Your task to perform on an android device: create a new album in the google photos Image 0: 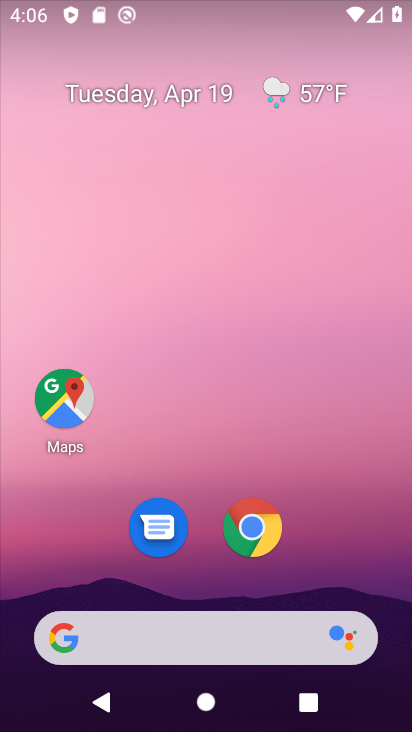
Step 0: drag from (398, 639) to (330, 183)
Your task to perform on an android device: create a new album in the google photos Image 1: 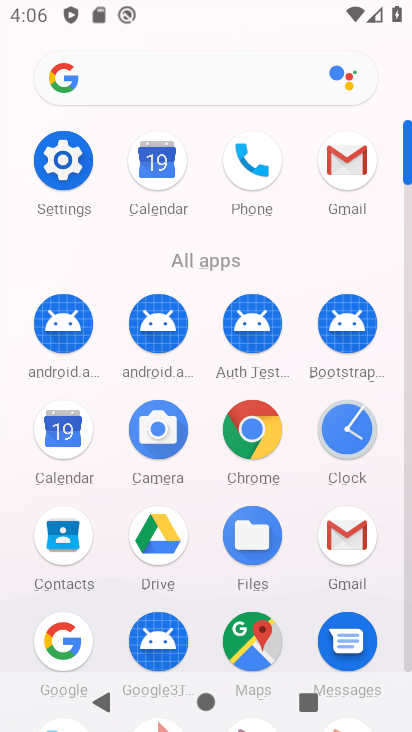
Step 1: click (406, 654)
Your task to perform on an android device: create a new album in the google photos Image 2: 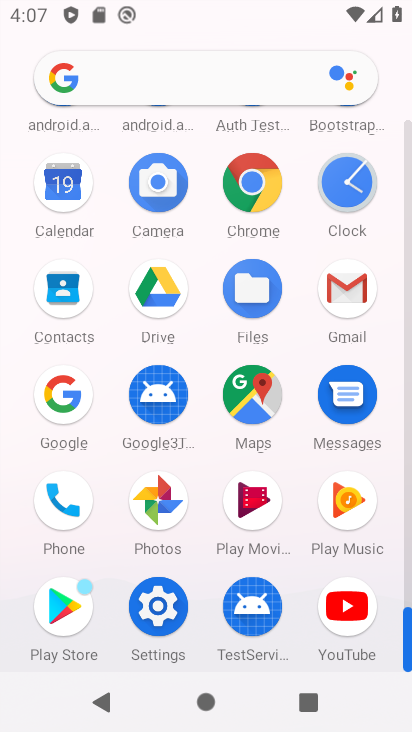
Step 2: click (159, 495)
Your task to perform on an android device: create a new album in the google photos Image 3: 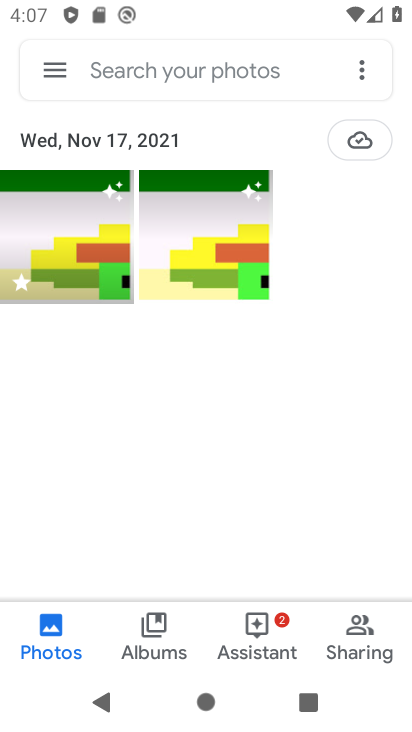
Step 3: click (360, 69)
Your task to perform on an android device: create a new album in the google photos Image 4: 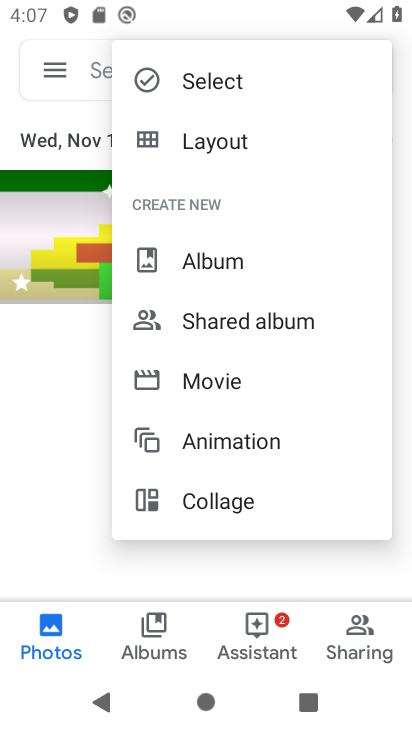
Step 4: click (219, 256)
Your task to perform on an android device: create a new album in the google photos Image 5: 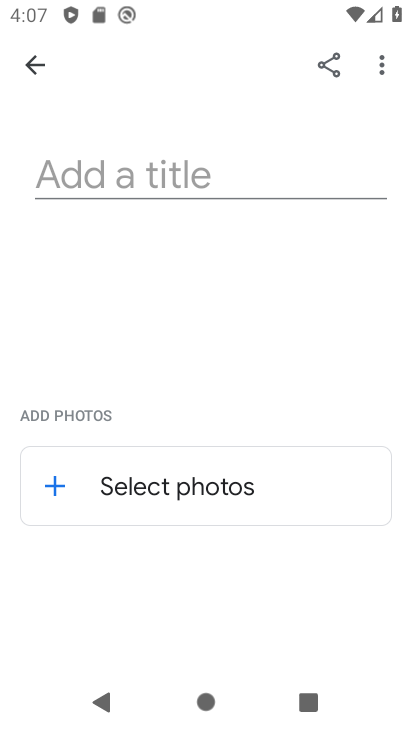
Step 5: click (103, 178)
Your task to perform on an android device: create a new album in the google photos Image 6: 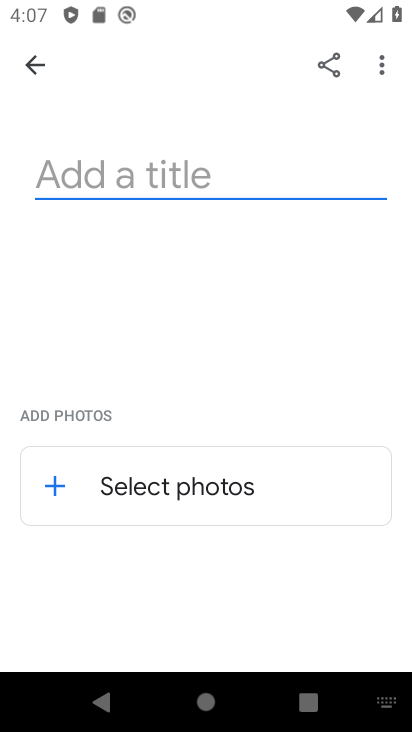
Step 6: type "aifeorop"
Your task to perform on an android device: create a new album in the google photos Image 7: 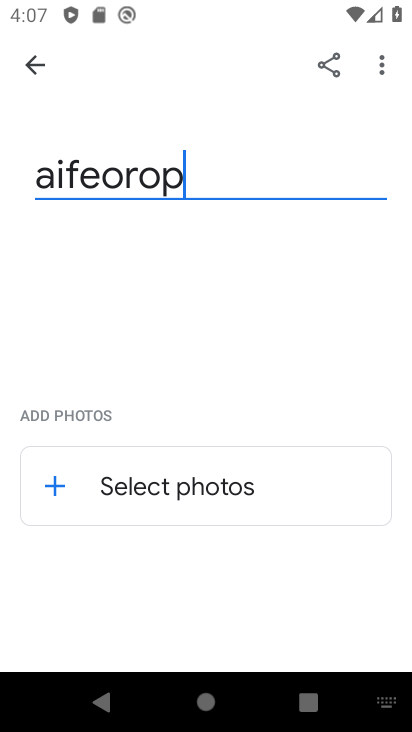
Step 7: click (56, 483)
Your task to perform on an android device: create a new album in the google photos Image 8: 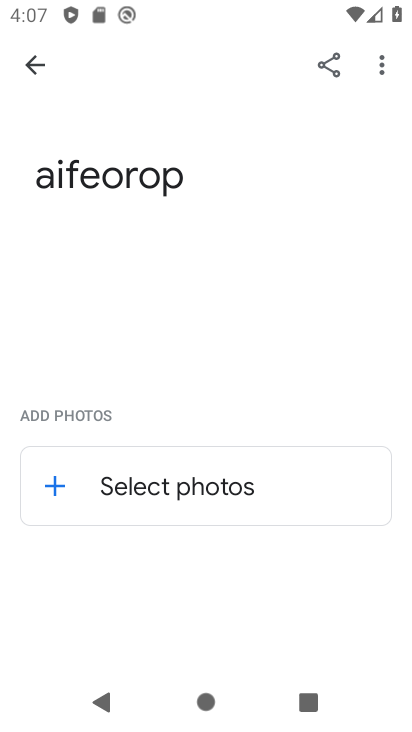
Step 8: click (56, 483)
Your task to perform on an android device: create a new album in the google photos Image 9: 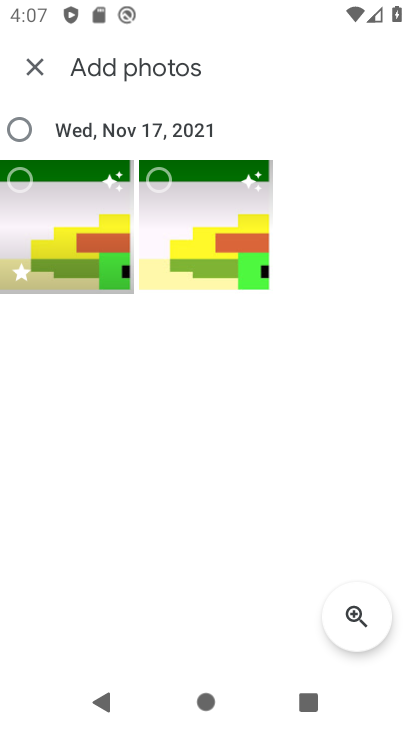
Step 9: click (20, 185)
Your task to perform on an android device: create a new album in the google photos Image 10: 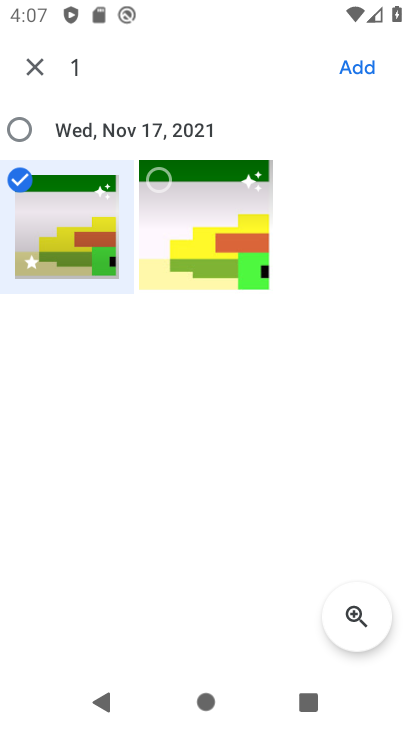
Step 10: click (173, 186)
Your task to perform on an android device: create a new album in the google photos Image 11: 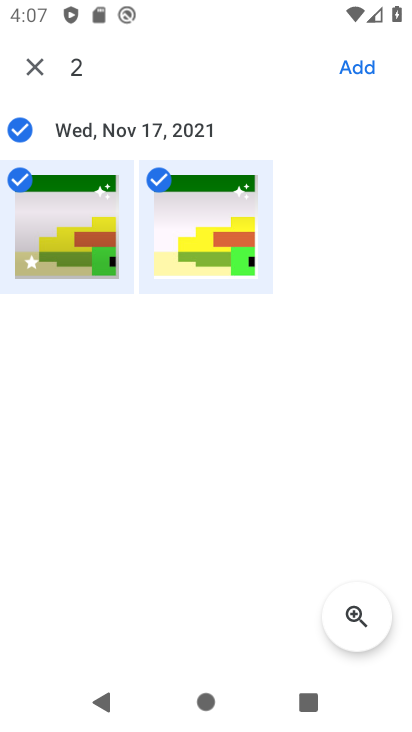
Step 11: click (371, 62)
Your task to perform on an android device: create a new album in the google photos Image 12: 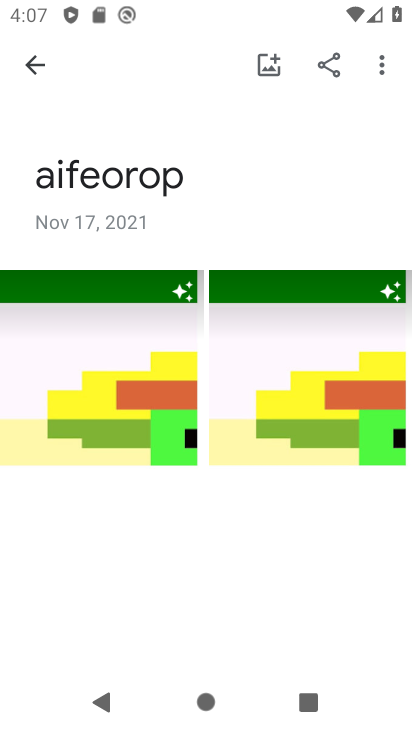
Step 12: task complete